Your task to perform on an android device: Open calendar and show me the third week of next month Image 0: 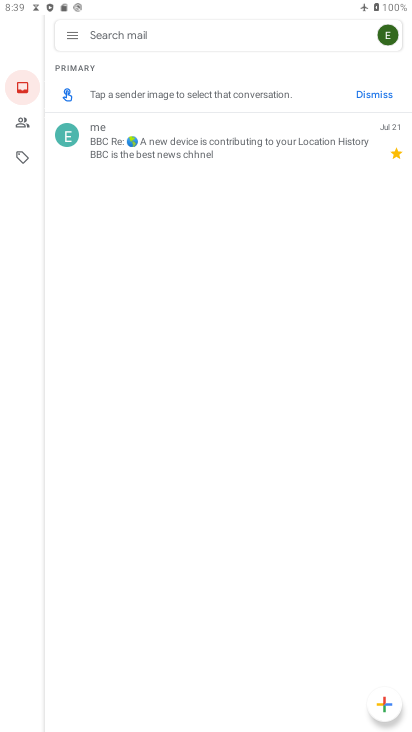
Step 0: press back button
Your task to perform on an android device: Open calendar and show me the third week of next month Image 1: 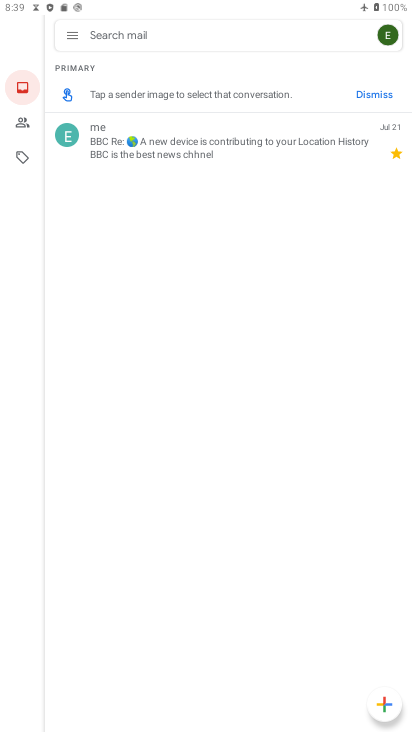
Step 1: press back button
Your task to perform on an android device: Open calendar and show me the third week of next month Image 2: 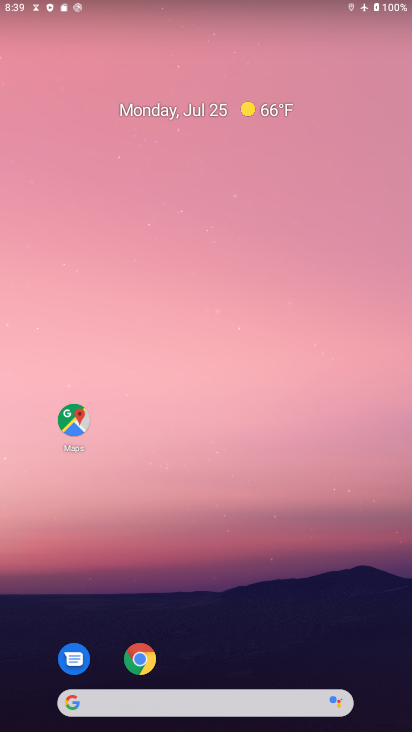
Step 2: drag from (275, 635) to (220, 358)
Your task to perform on an android device: Open calendar and show me the third week of next month Image 3: 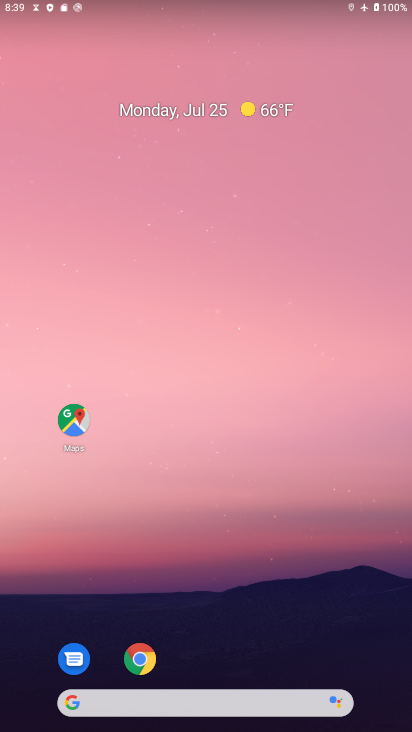
Step 3: drag from (243, 623) to (208, 299)
Your task to perform on an android device: Open calendar and show me the third week of next month Image 4: 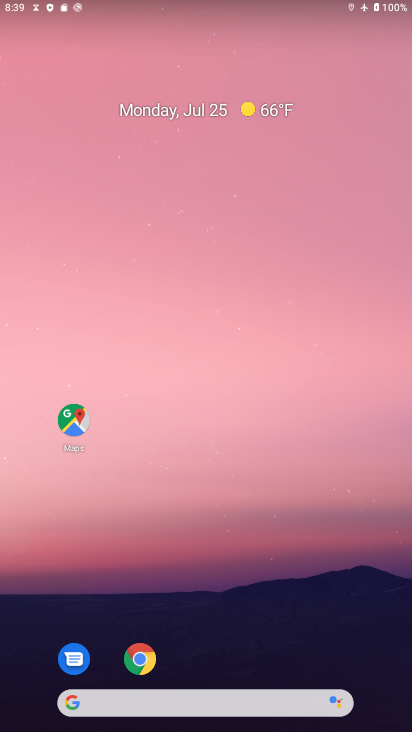
Step 4: drag from (263, 644) to (229, 269)
Your task to perform on an android device: Open calendar and show me the third week of next month Image 5: 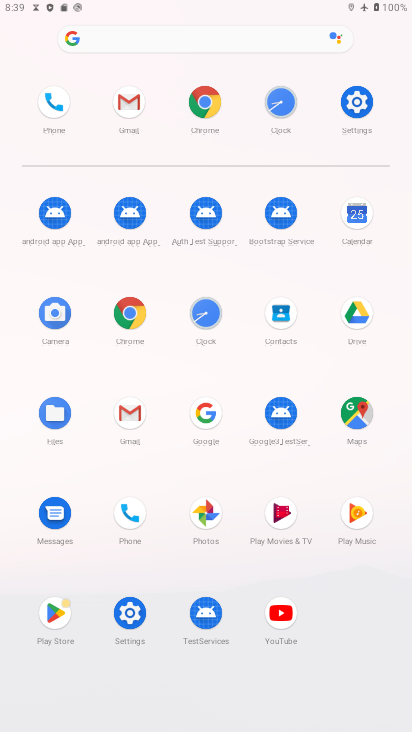
Step 5: drag from (233, 482) to (272, 132)
Your task to perform on an android device: Open calendar and show me the third week of next month Image 6: 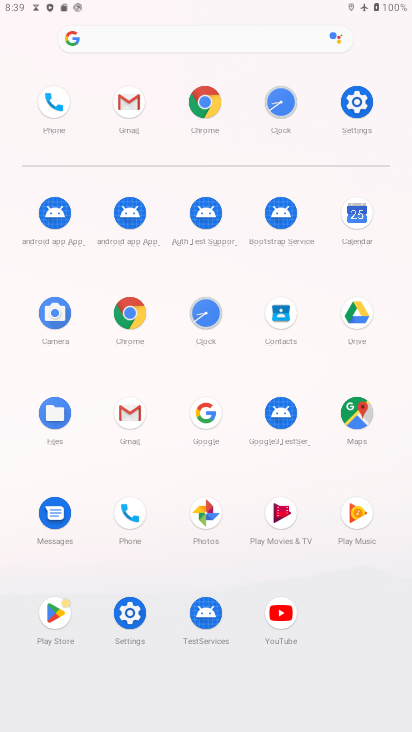
Step 6: click (354, 215)
Your task to perform on an android device: Open calendar and show me the third week of next month Image 7: 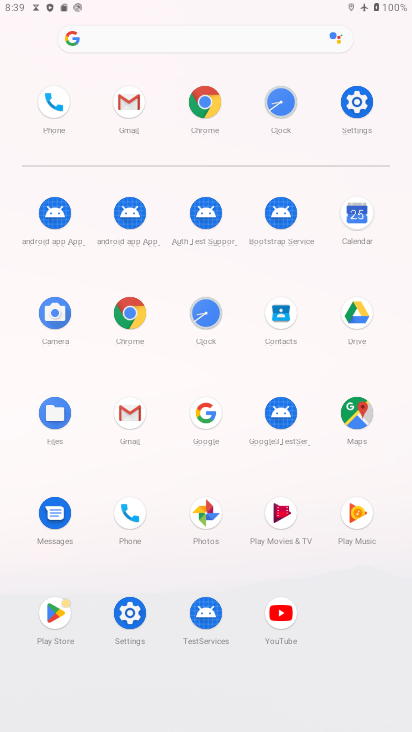
Step 7: click (359, 221)
Your task to perform on an android device: Open calendar and show me the third week of next month Image 8: 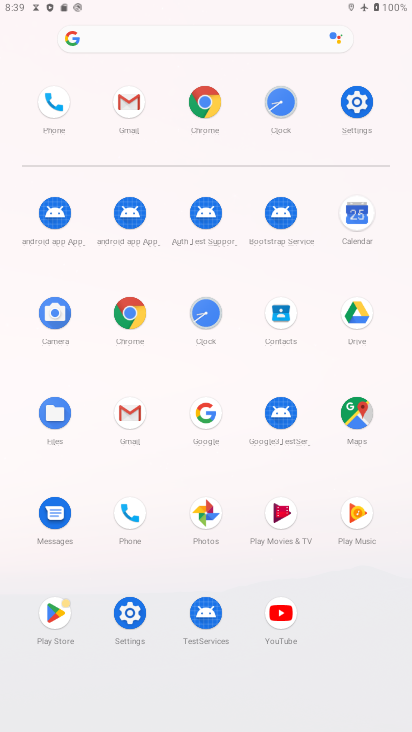
Step 8: click (360, 222)
Your task to perform on an android device: Open calendar and show me the third week of next month Image 9: 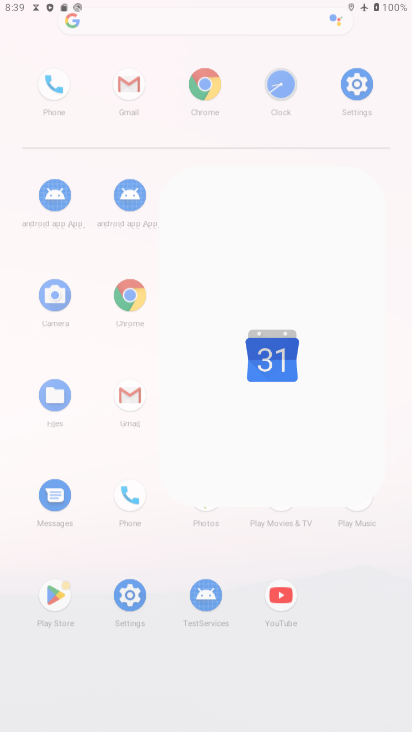
Step 9: click (361, 222)
Your task to perform on an android device: Open calendar and show me the third week of next month Image 10: 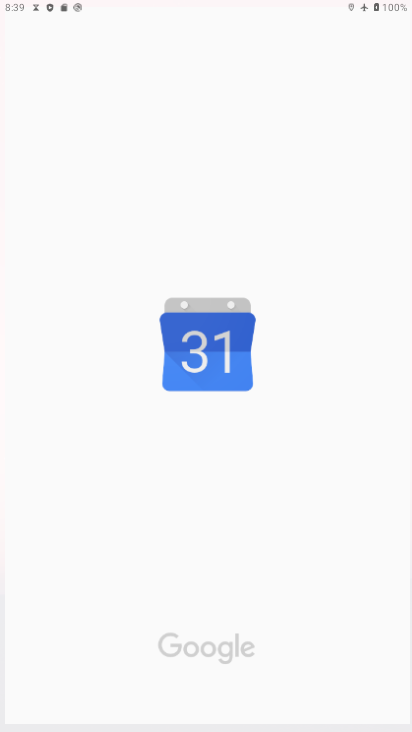
Step 10: click (364, 224)
Your task to perform on an android device: Open calendar and show me the third week of next month Image 11: 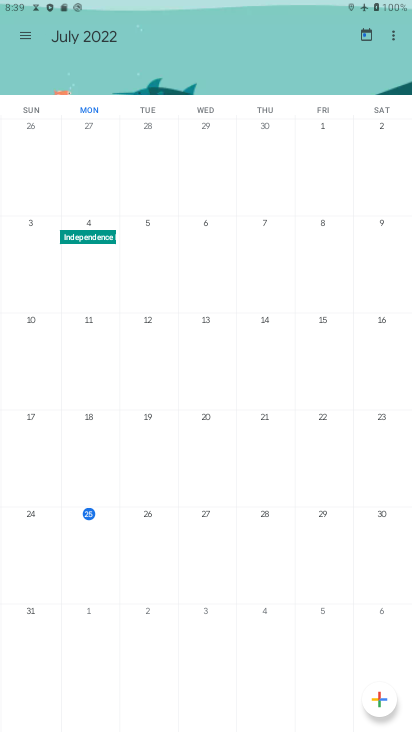
Step 11: drag from (273, 289) to (6, 436)
Your task to perform on an android device: Open calendar and show me the third week of next month Image 12: 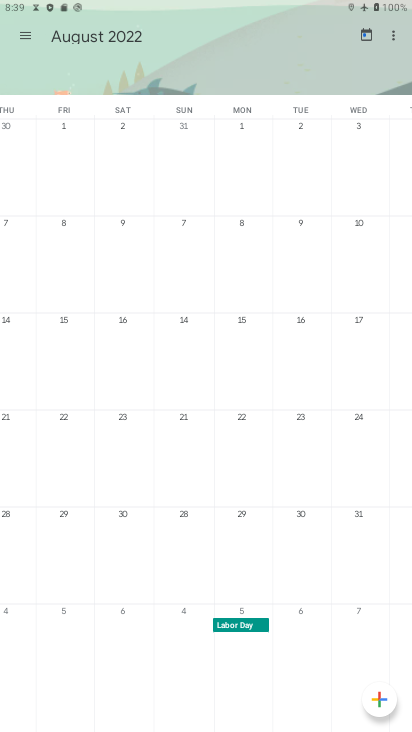
Step 12: drag from (222, 432) to (18, 421)
Your task to perform on an android device: Open calendar and show me the third week of next month Image 13: 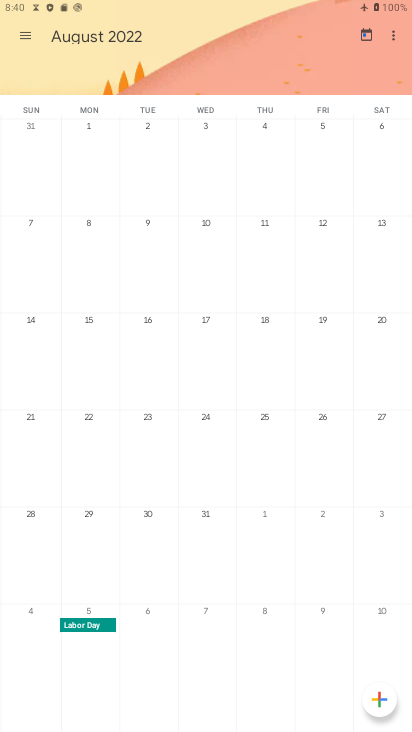
Step 13: drag from (90, 369) to (370, 410)
Your task to perform on an android device: Open calendar and show me the third week of next month Image 14: 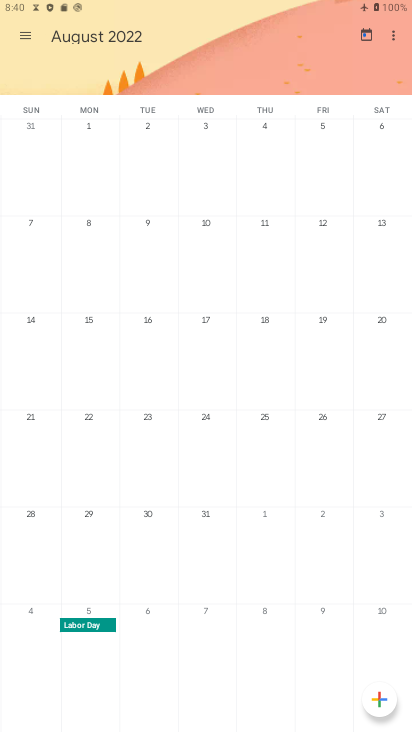
Step 14: drag from (127, 371) to (383, 410)
Your task to perform on an android device: Open calendar and show me the third week of next month Image 15: 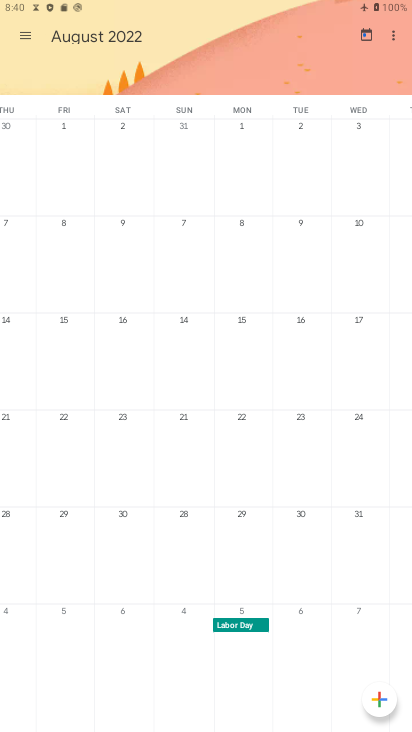
Step 15: drag from (155, 376) to (401, 365)
Your task to perform on an android device: Open calendar and show me the third week of next month Image 16: 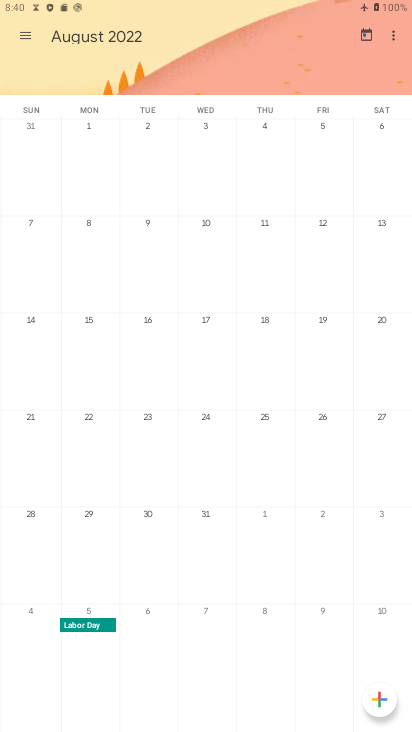
Step 16: drag from (90, 390) to (365, 388)
Your task to perform on an android device: Open calendar and show me the third week of next month Image 17: 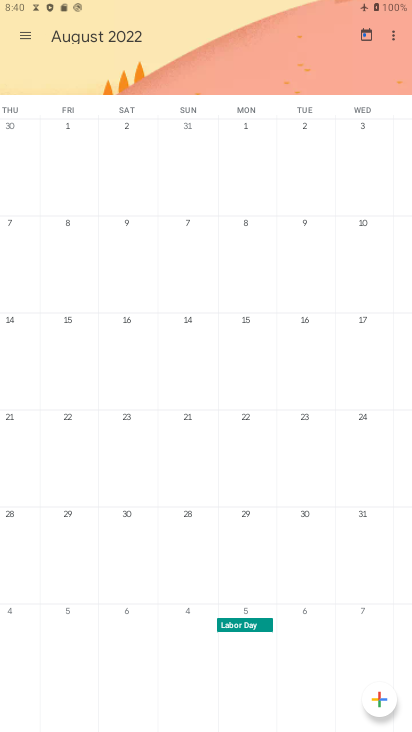
Step 17: drag from (136, 387) to (392, 352)
Your task to perform on an android device: Open calendar and show me the third week of next month Image 18: 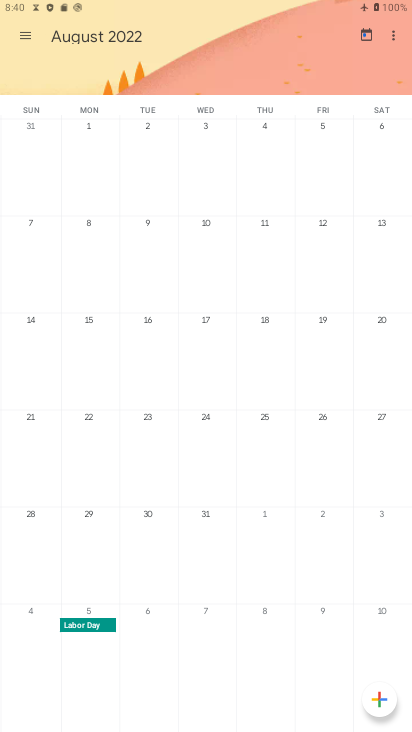
Step 18: click (91, 320)
Your task to perform on an android device: Open calendar and show me the third week of next month Image 19: 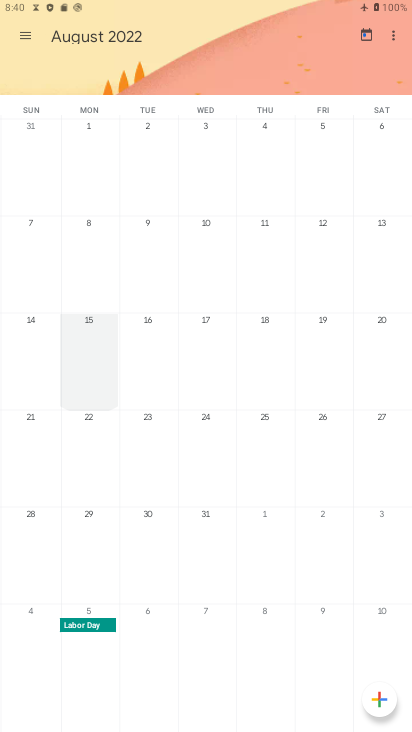
Step 19: click (92, 321)
Your task to perform on an android device: Open calendar and show me the third week of next month Image 20: 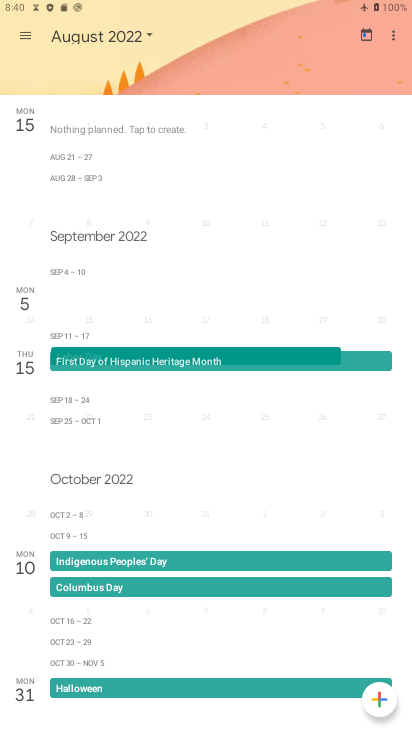
Step 20: click (97, 322)
Your task to perform on an android device: Open calendar and show me the third week of next month Image 21: 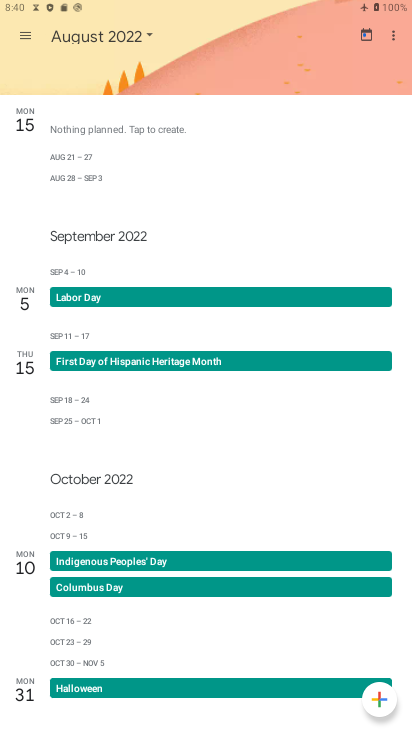
Step 21: click (97, 322)
Your task to perform on an android device: Open calendar and show me the third week of next month Image 22: 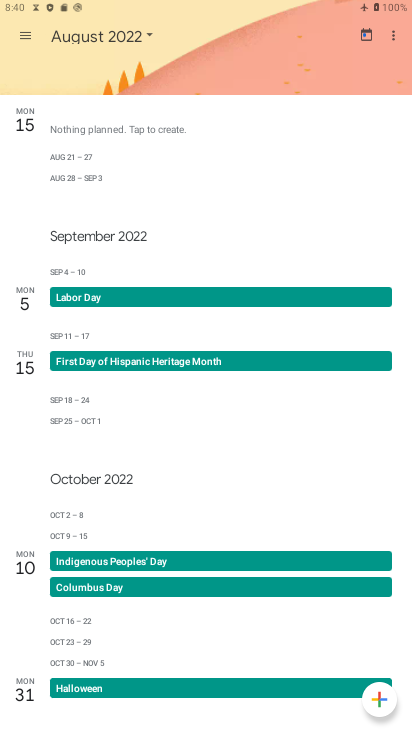
Step 22: click (88, 321)
Your task to perform on an android device: Open calendar and show me the third week of next month Image 23: 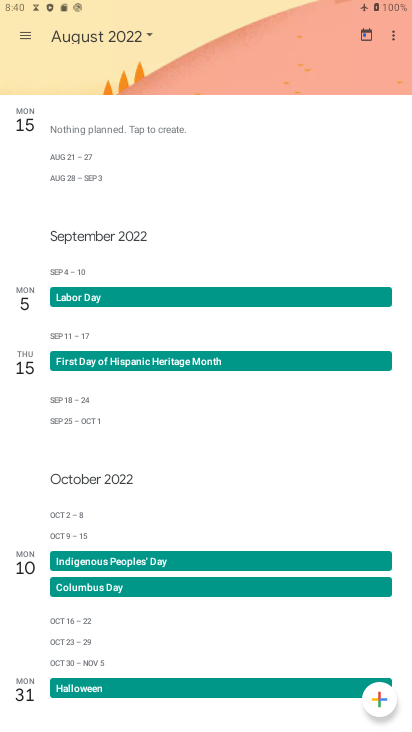
Step 23: task complete